Your task to perform on an android device: What's the weather today? Image 0: 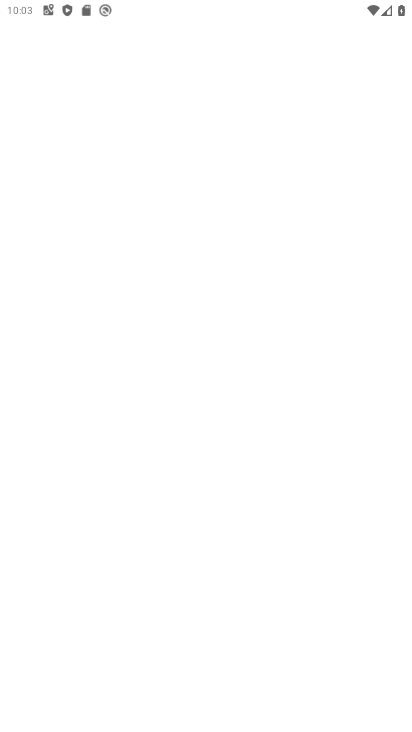
Step 0: press home button
Your task to perform on an android device: What's the weather today? Image 1: 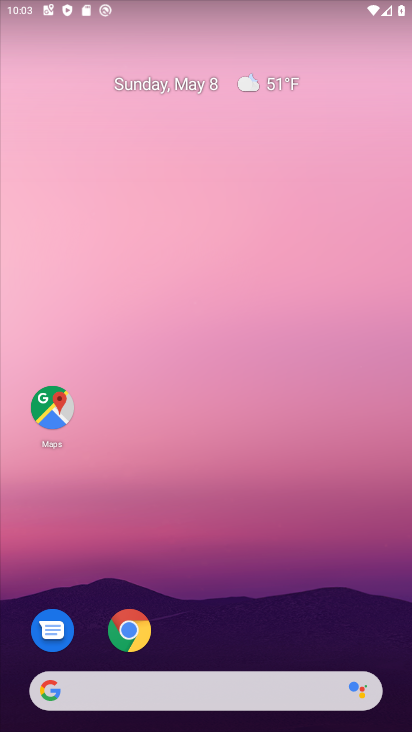
Step 1: click (176, 697)
Your task to perform on an android device: What's the weather today? Image 2: 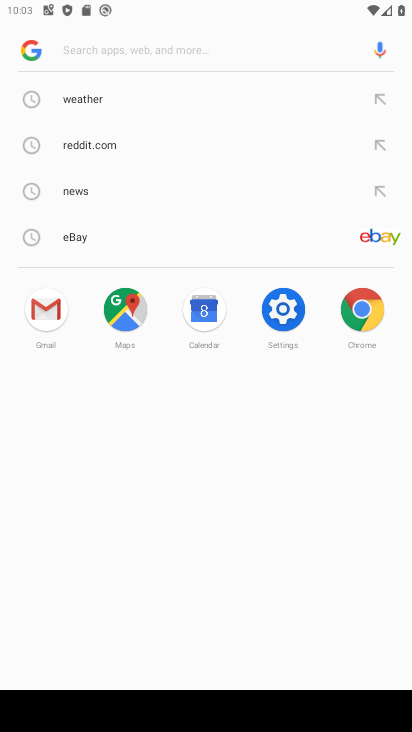
Step 2: click (120, 98)
Your task to perform on an android device: What's the weather today? Image 3: 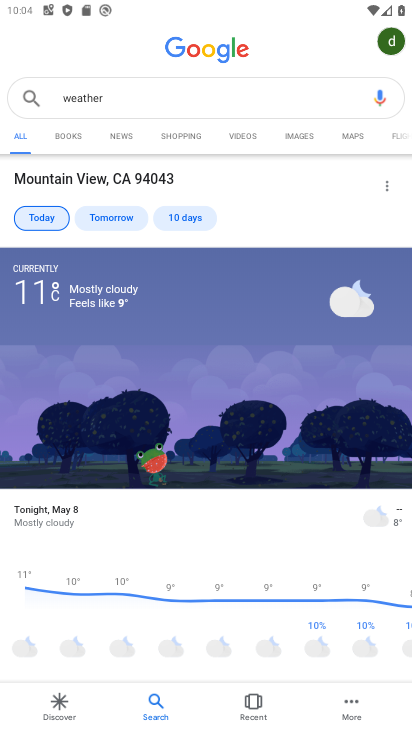
Step 3: task complete